Your task to perform on an android device: move an email to a new category in the gmail app Image 0: 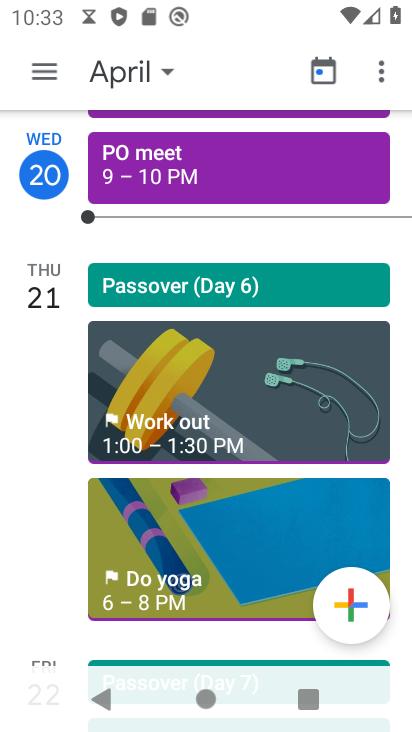
Step 0: press home button
Your task to perform on an android device: move an email to a new category in the gmail app Image 1: 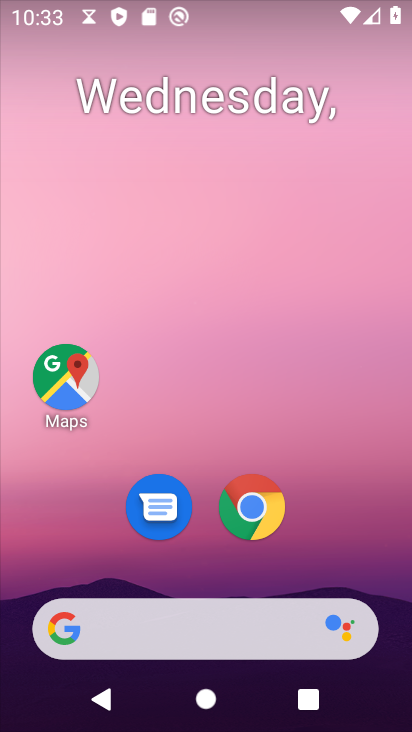
Step 1: drag from (214, 652) to (131, 281)
Your task to perform on an android device: move an email to a new category in the gmail app Image 2: 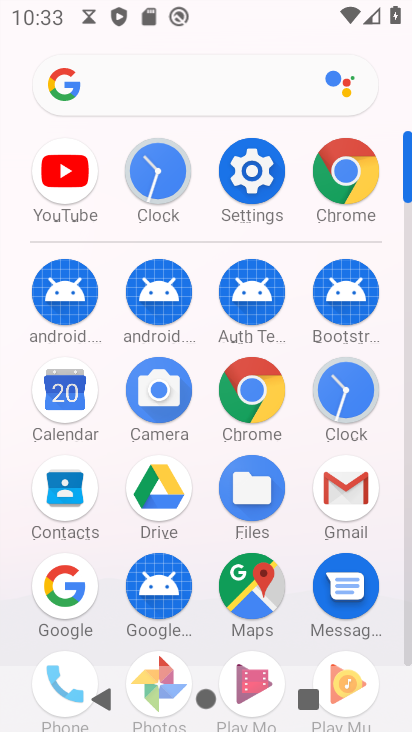
Step 2: click (330, 478)
Your task to perform on an android device: move an email to a new category in the gmail app Image 3: 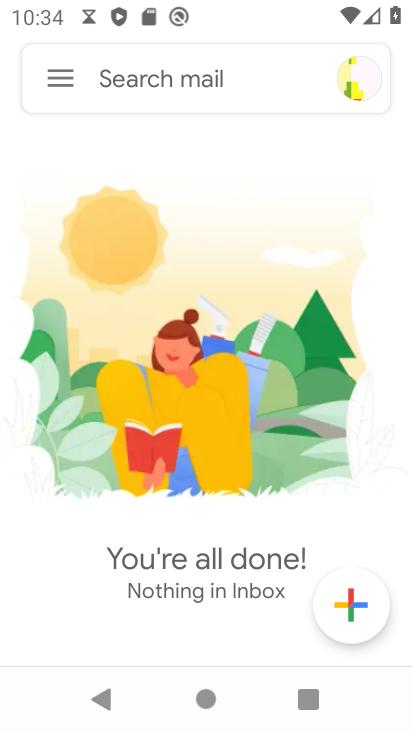
Step 3: click (40, 96)
Your task to perform on an android device: move an email to a new category in the gmail app Image 4: 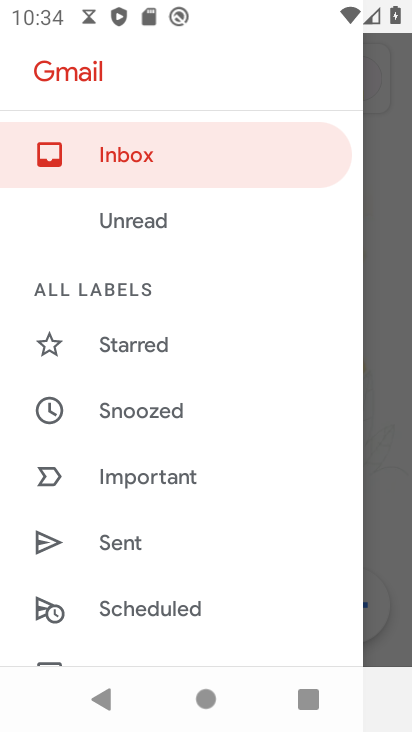
Step 4: drag from (121, 534) to (196, 360)
Your task to perform on an android device: move an email to a new category in the gmail app Image 5: 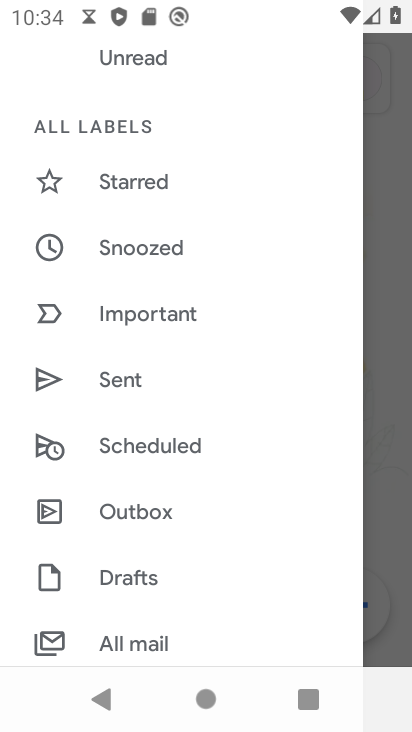
Step 5: drag from (148, 592) to (258, 302)
Your task to perform on an android device: move an email to a new category in the gmail app Image 6: 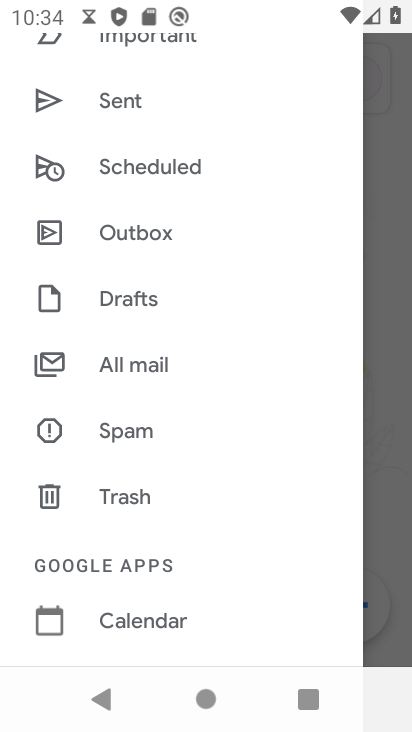
Step 6: drag from (144, 579) to (190, 396)
Your task to perform on an android device: move an email to a new category in the gmail app Image 7: 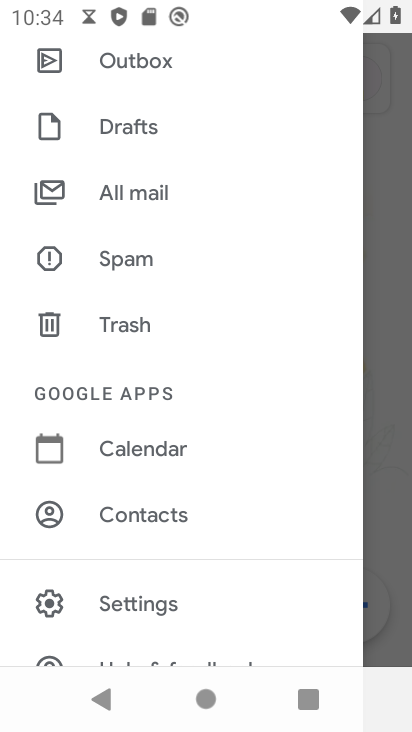
Step 7: click (119, 603)
Your task to perform on an android device: move an email to a new category in the gmail app Image 8: 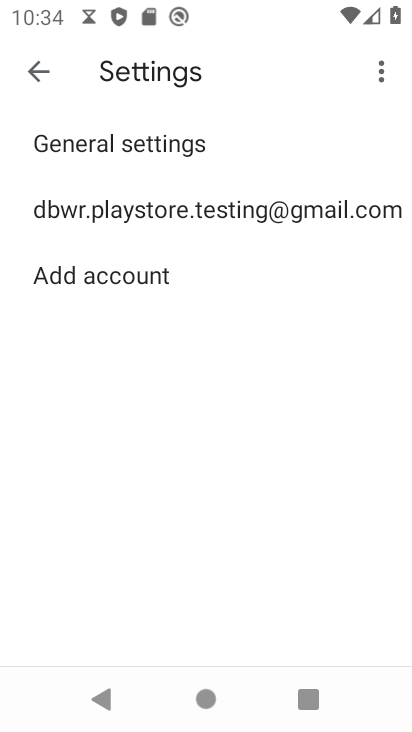
Step 8: click (230, 206)
Your task to perform on an android device: move an email to a new category in the gmail app Image 9: 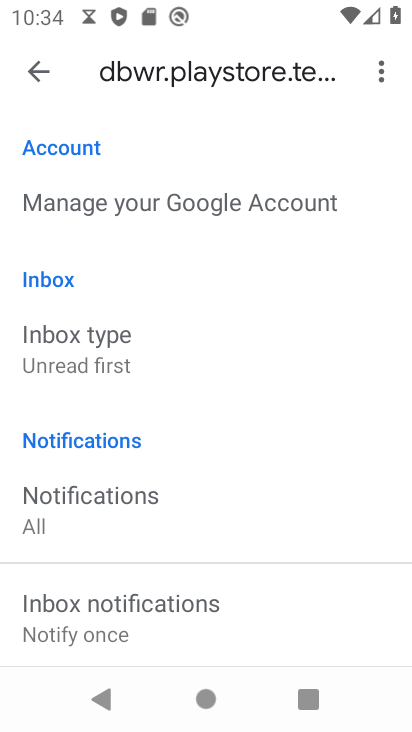
Step 9: drag from (141, 526) to (214, 267)
Your task to perform on an android device: move an email to a new category in the gmail app Image 10: 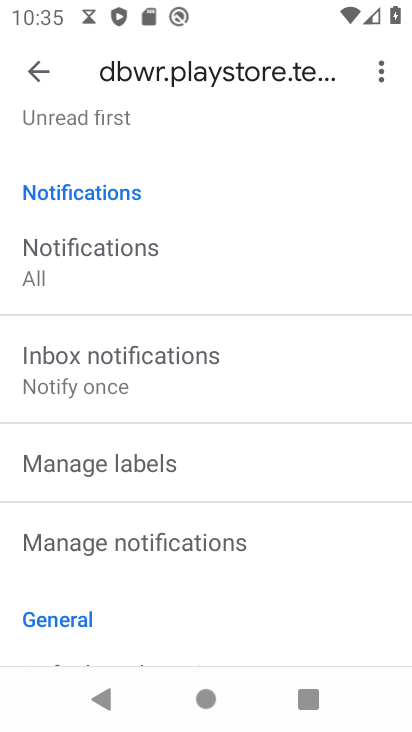
Step 10: drag from (160, 492) to (269, 280)
Your task to perform on an android device: move an email to a new category in the gmail app Image 11: 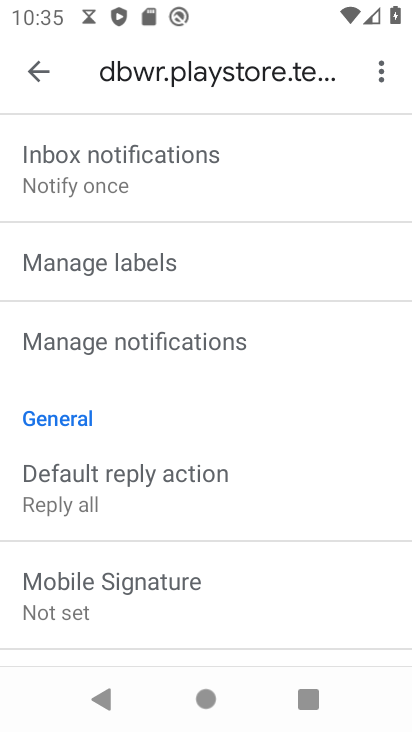
Step 11: drag from (151, 578) to (235, 196)
Your task to perform on an android device: move an email to a new category in the gmail app Image 12: 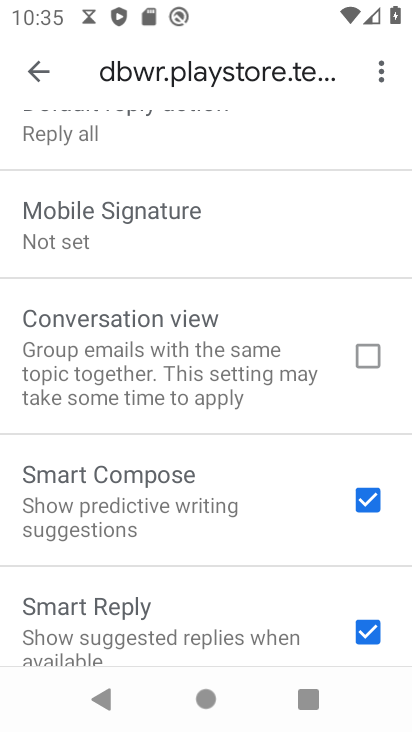
Step 12: drag from (124, 497) to (196, 174)
Your task to perform on an android device: move an email to a new category in the gmail app Image 13: 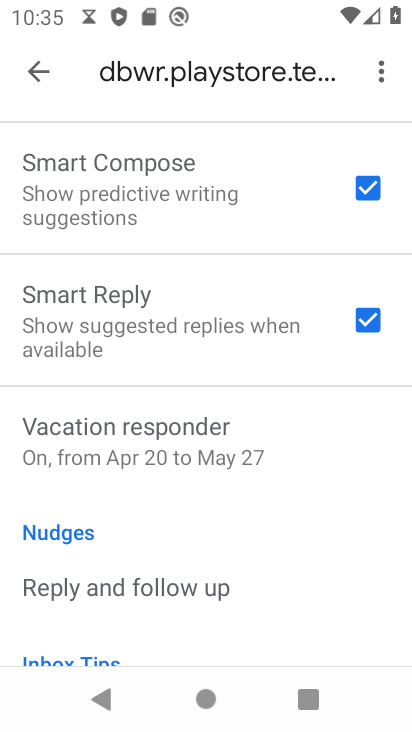
Step 13: drag from (127, 495) to (203, 234)
Your task to perform on an android device: move an email to a new category in the gmail app Image 14: 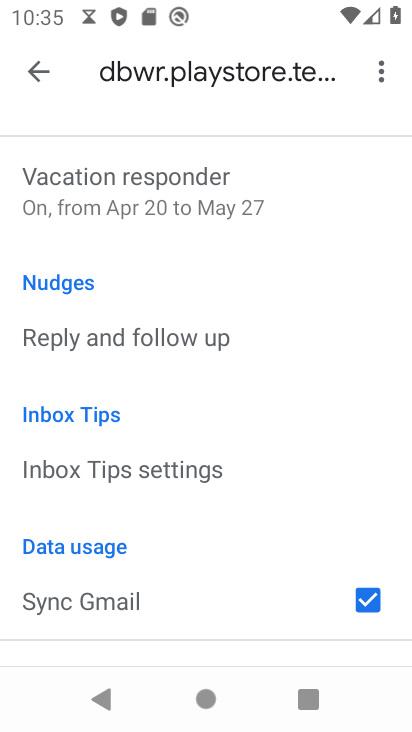
Step 14: drag from (140, 492) to (199, 226)
Your task to perform on an android device: move an email to a new category in the gmail app Image 15: 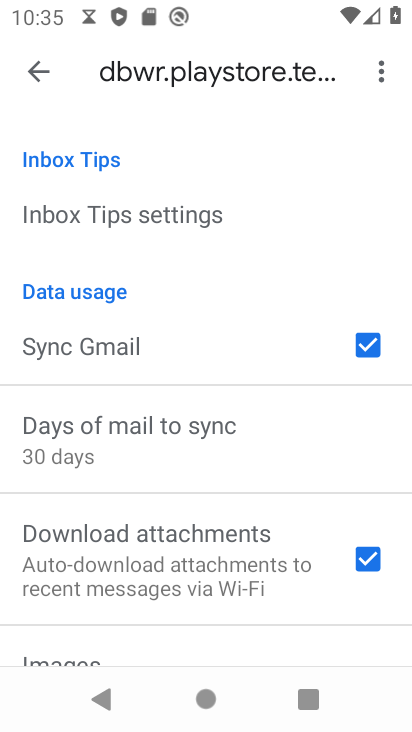
Step 15: drag from (182, 205) to (156, 609)
Your task to perform on an android device: move an email to a new category in the gmail app Image 16: 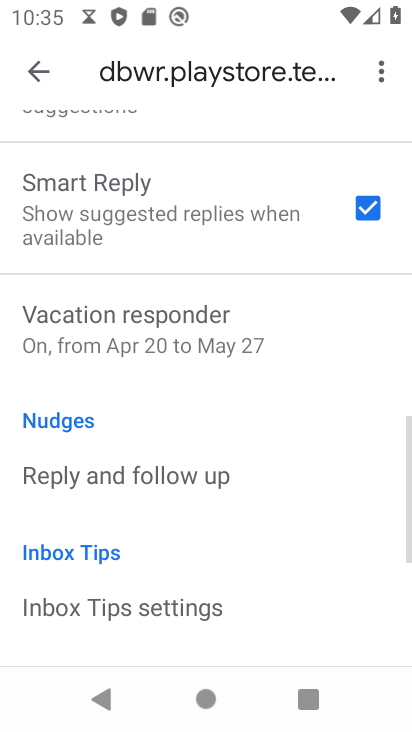
Step 16: drag from (189, 239) to (157, 604)
Your task to perform on an android device: move an email to a new category in the gmail app Image 17: 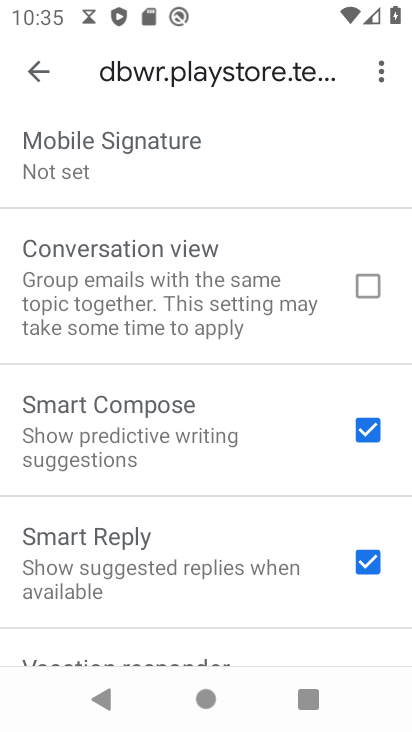
Step 17: drag from (176, 592) to (150, 695)
Your task to perform on an android device: move an email to a new category in the gmail app Image 18: 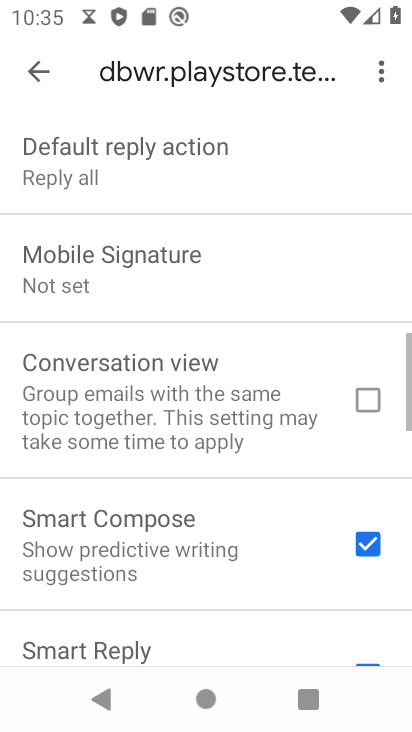
Step 18: drag from (185, 221) to (132, 687)
Your task to perform on an android device: move an email to a new category in the gmail app Image 19: 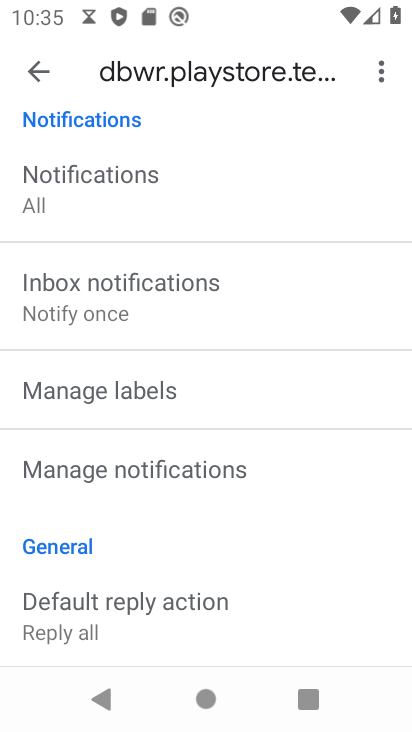
Step 19: drag from (125, 359) to (106, 494)
Your task to perform on an android device: move an email to a new category in the gmail app Image 20: 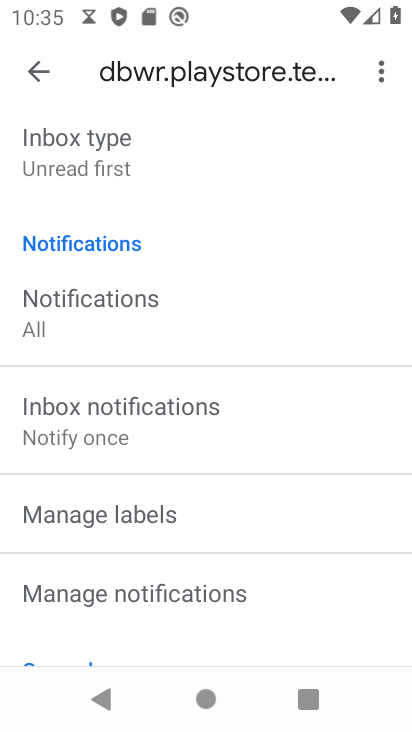
Step 20: click (180, 173)
Your task to perform on an android device: move an email to a new category in the gmail app Image 21: 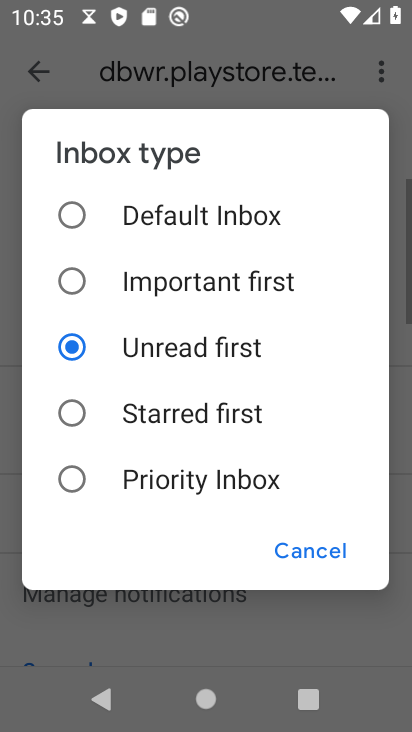
Step 21: click (125, 215)
Your task to perform on an android device: move an email to a new category in the gmail app Image 22: 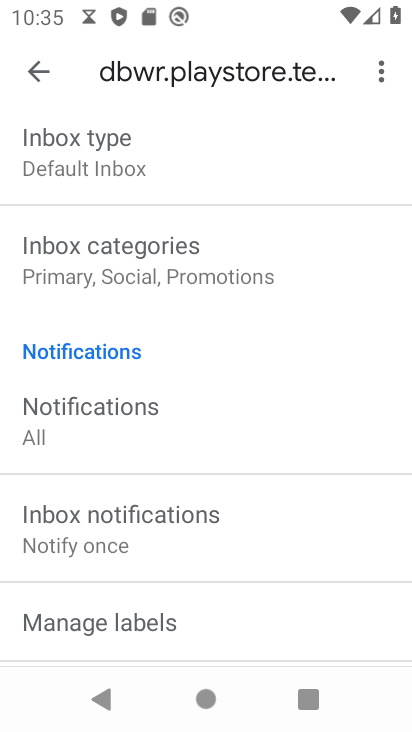
Step 22: click (90, 284)
Your task to perform on an android device: move an email to a new category in the gmail app Image 23: 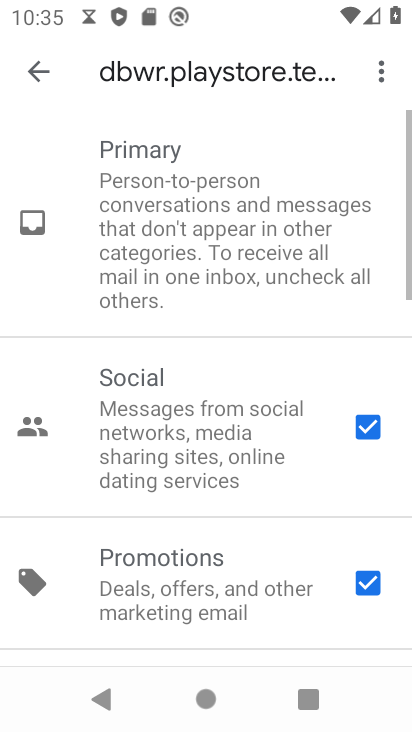
Step 23: task complete